Your task to perform on an android device: check android version Image 0: 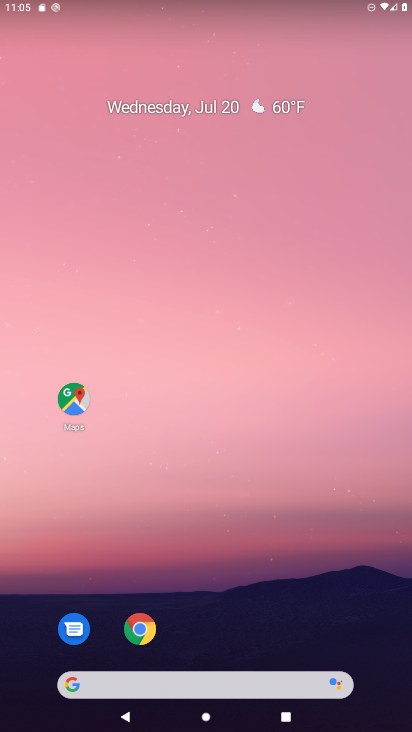
Step 0: drag from (230, 565) to (230, 172)
Your task to perform on an android device: check android version Image 1: 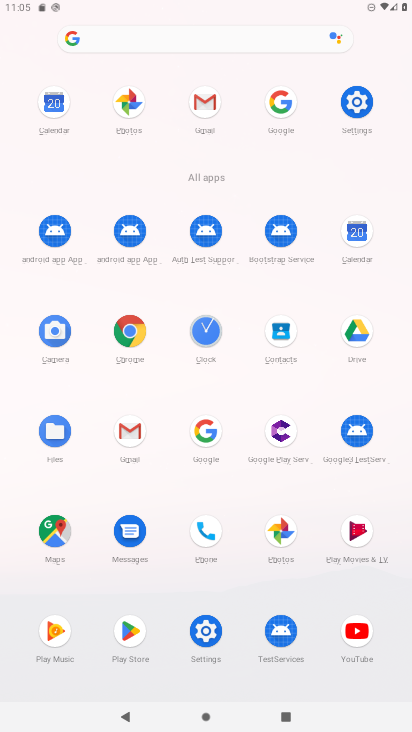
Step 1: click (353, 96)
Your task to perform on an android device: check android version Image 2: 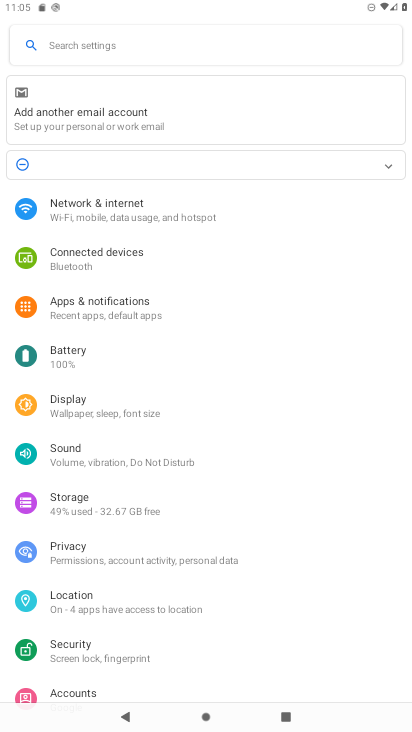
Step 2: drag from (173, 640) to (208, 175)
Your task to perform on an android device: check android version Image 3: 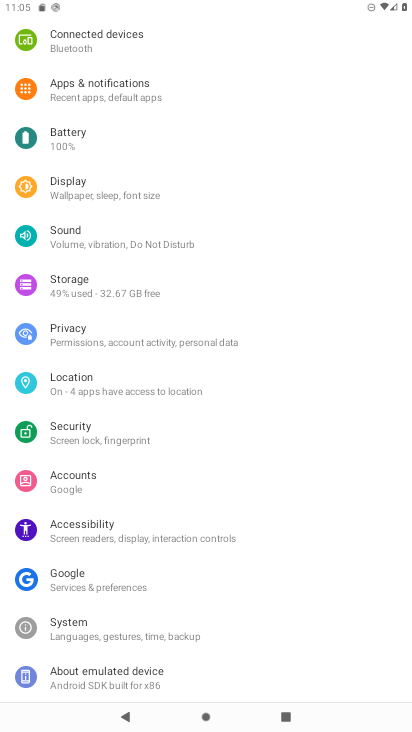
Step 3: drag from (158, 615) to (180, 173)
Your task to perform on an android device: check android version Image 4: 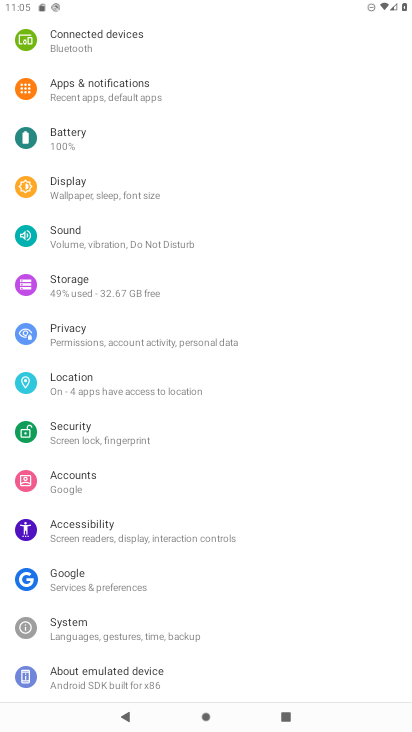
Step 4: click (99, 663)
Your task to perform on an android device: check android version Image 5: 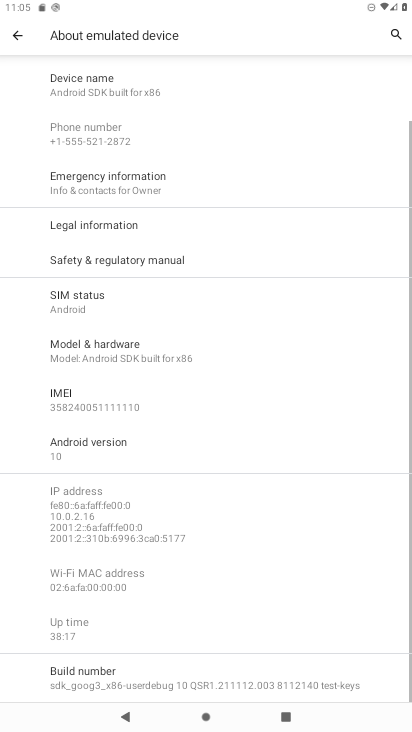
Step 5: click (134, 450)
Your task to perform on an android device: check android version Image 6: 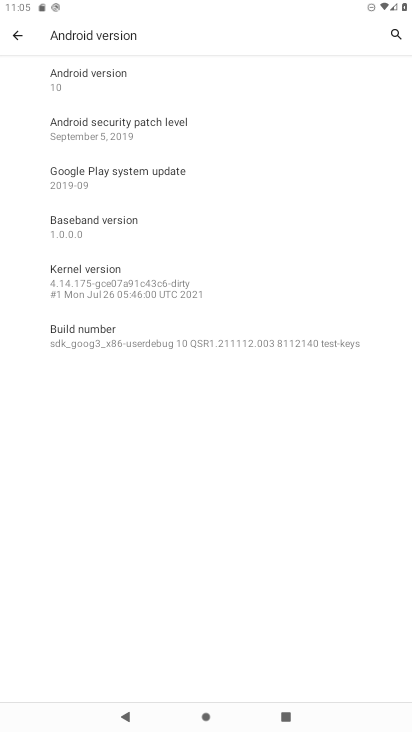
Step 6: click (125, 84)
Your task to perform on an android device: check android version Image 7: 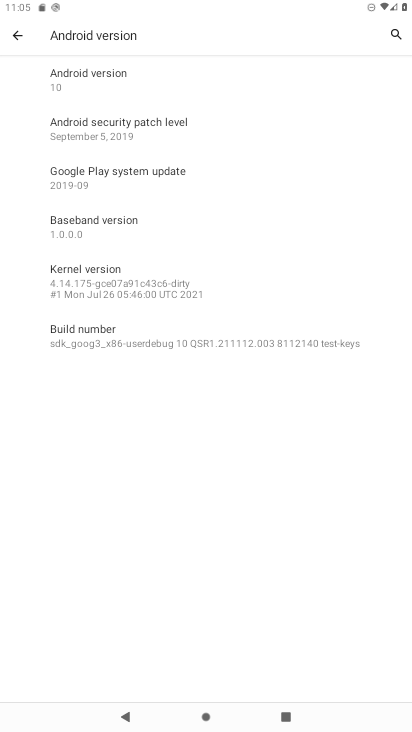
Step 7: click (76, 78)
Your task to perform on an android device: check android version Image 8: 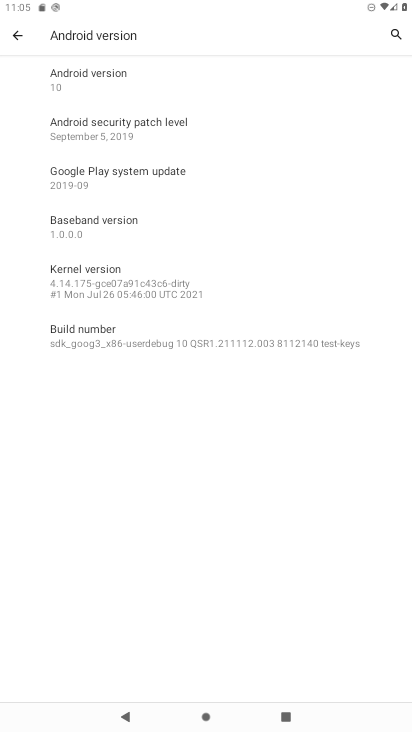
Step 8: task complete